Your task to perform on an android device: turn on showing notifications on the lock screen Image 0: 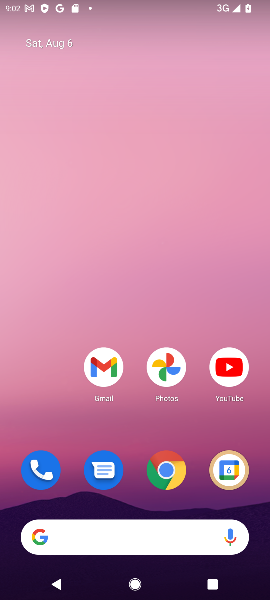
Step 0: drag from (126, 530) to (132, 148)
Your task to perform on an android device: turn on showing notifications on the lock screen Image 1: 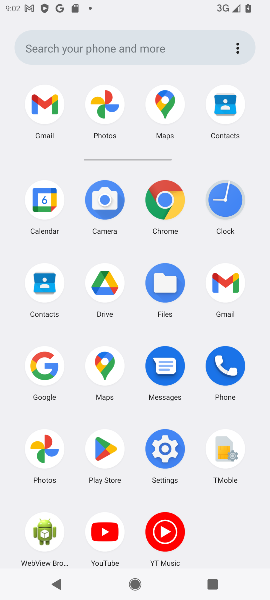
Step 1: click (144, 455)
Your task to perform on an android device: turn on showing notifications on the lock screen Image 2: 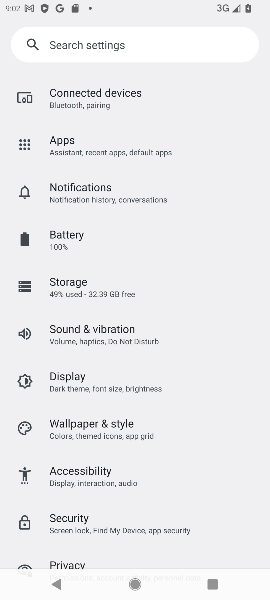
Step 2: click (92, 190)
Your task to perform on an android device: turn on showing notifications on the lock screen Image 3: 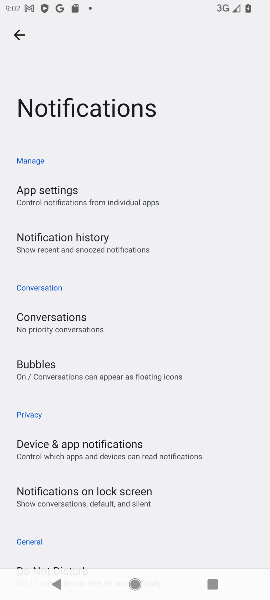
Step 3: drag from (97, 425) to (125, 148)
Your task to perform on an android device: turn on showing notifications on the lock screen Image 4: 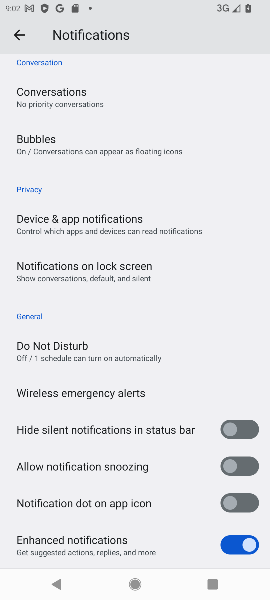
Step 4: drag from (116, 277) to (123, 515)
Your task to perform on an android device: turn on showing notifications on the lock screen Image 5: 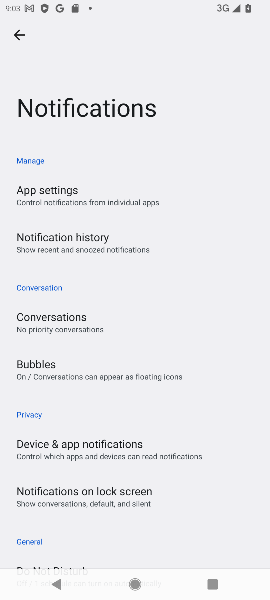
Step 5: drag from (124, 410) to (169, 115)
Your task to perform on an android device: turn on showing notifications on the lock screen Image 6: 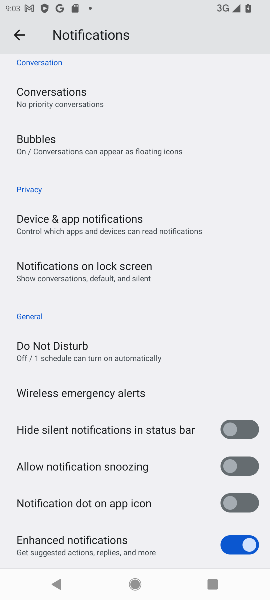
Step 6: click (133, 272)
Your task to perform on an android device: turn on showing notifications on the lock screen Image 7: 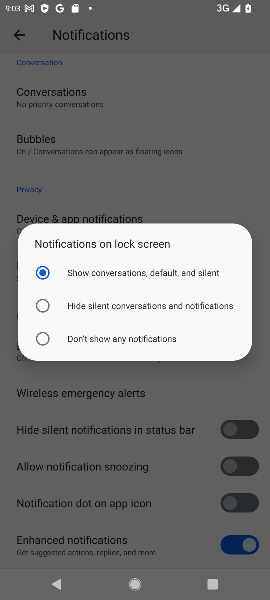
Step 7: task complete